Your task to perform on an android device: find photos in the google photos app Image 0: 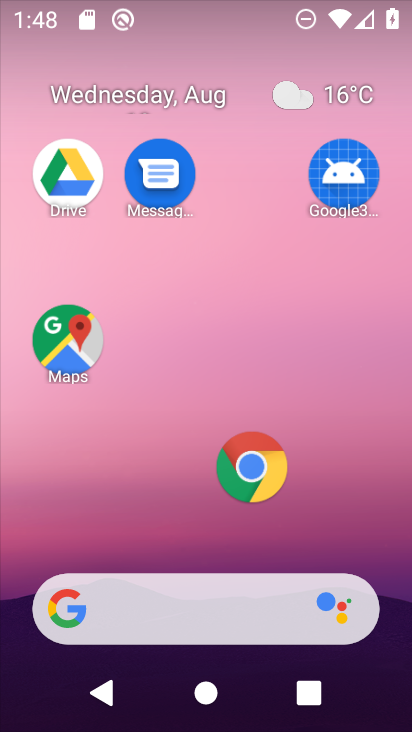
Step 0: drag from (170, 543) to (159, 83)
Your task to perform on an android device: find photos in the google photos app Image 1: 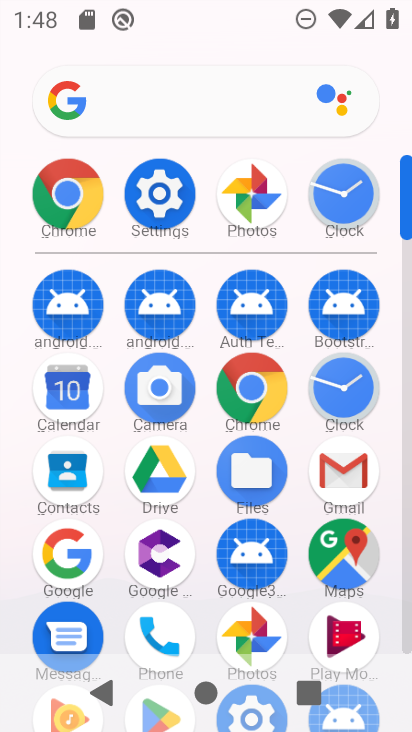
Step 1: click (271, 182)
Your task to perform on an android device: find photos in the google photos app Image 2: 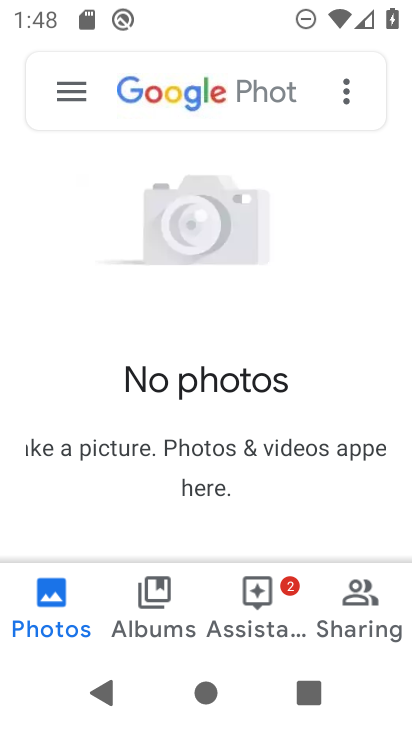
Step 2: task complete